Your task to perform on an android device: empty trash in google photos Image 0: 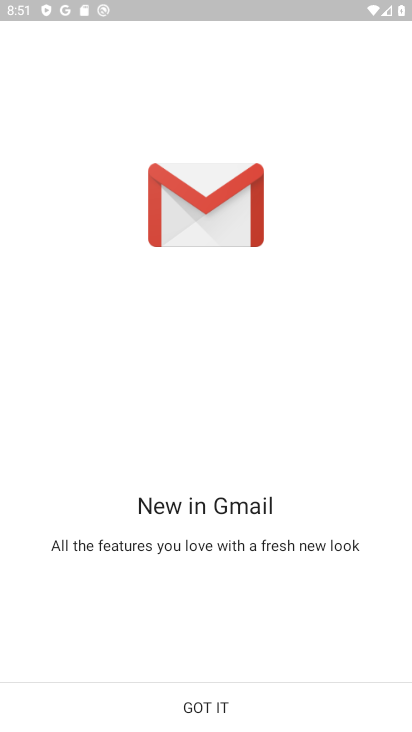
Step 0: click (192, 706)
Your task to perform on an android device: empty trash in google photos Image 1: 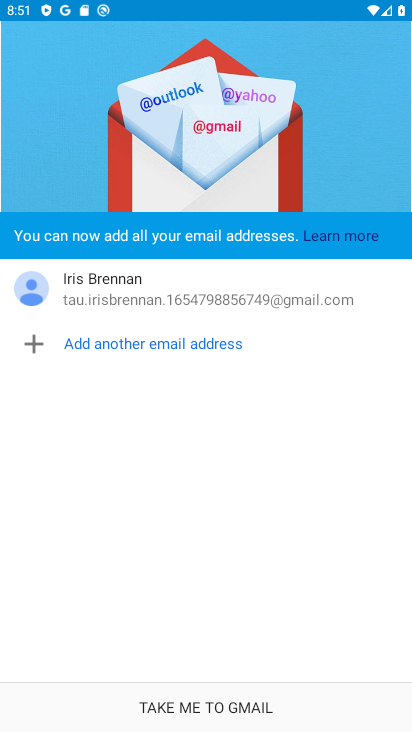
Step 1: press home button
Your task to perform on an android device: empty trash in google photos Image 2: 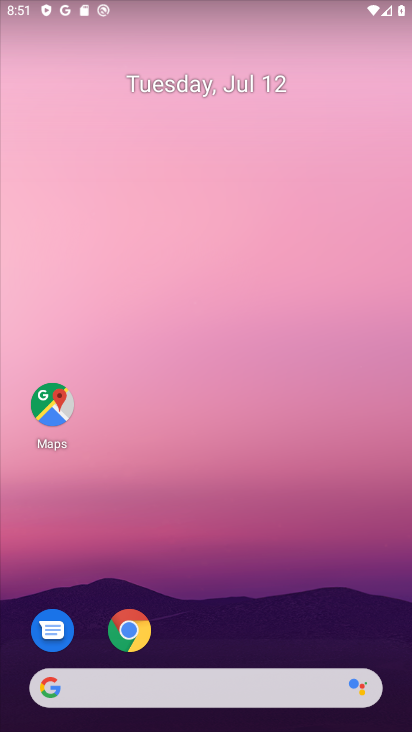
Step 2: drag from (191, 649) to (183, 130)
Your task to perform on an android device: empty trash in google photos Image 3: 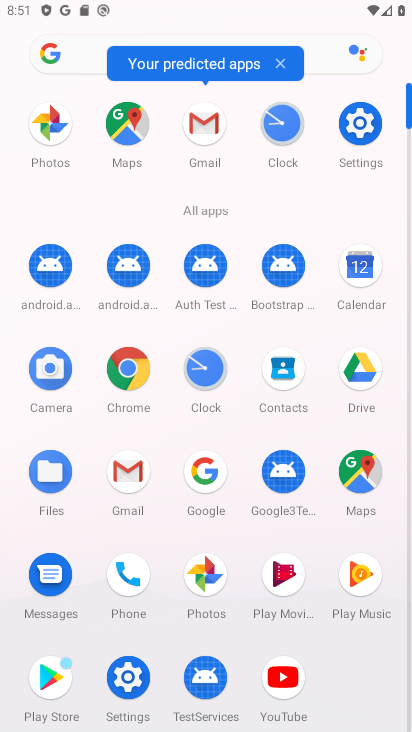
Step 3: click (200, 574)
Your task to perform on an android device: empty trash in google photos Image 4: 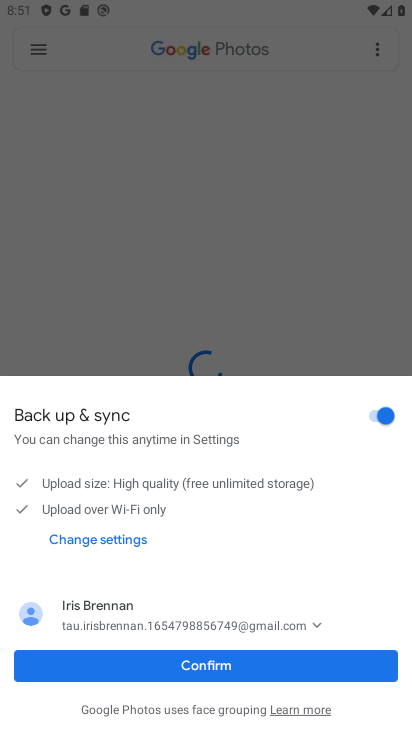
Step 4: click (185, 675)
Your task to perform on an android device: empty trash in google photos Image 5: 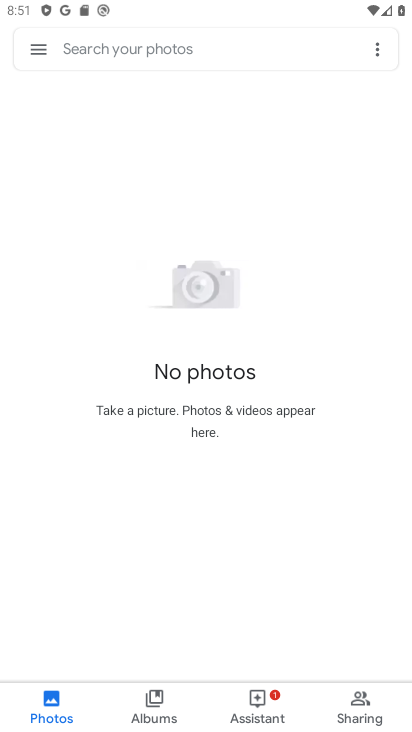
Step 5: click (36, 53)
Your task to perform on an android device: empty trash in google photos Image 6: 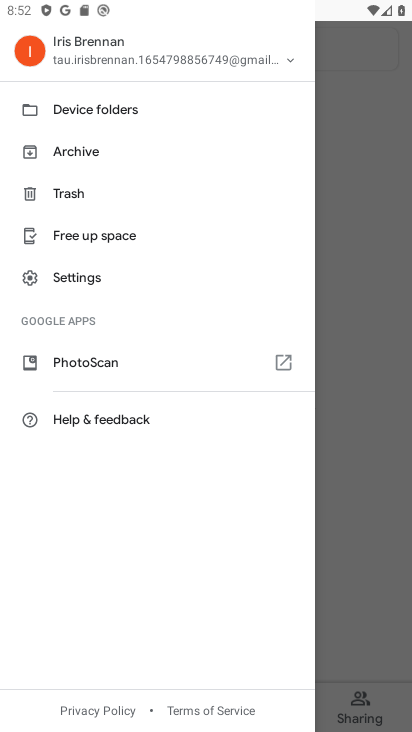
Step 6: click (89, 187)
Your task to perform on an android device: empty trash in google photos Image 7: 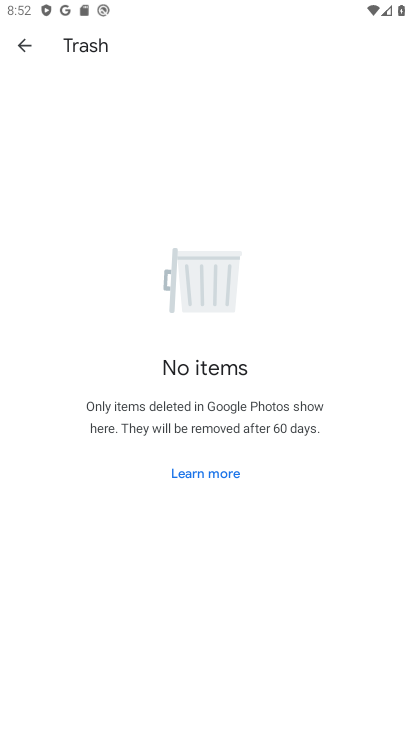
Step 7: task complete